Your task to perform on an android device: read, delete, or share a saved page in the chrome app Image 0: 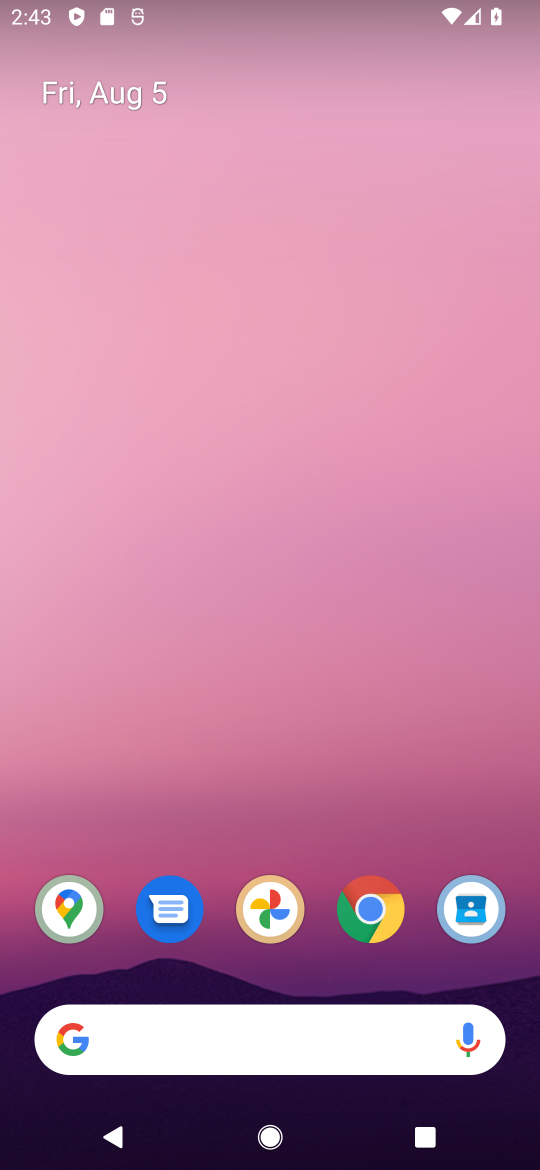
Step 0: click (383, 894)
Your task to perform on an android device: read, delete, or share a saved page in the chrome app Image 1: 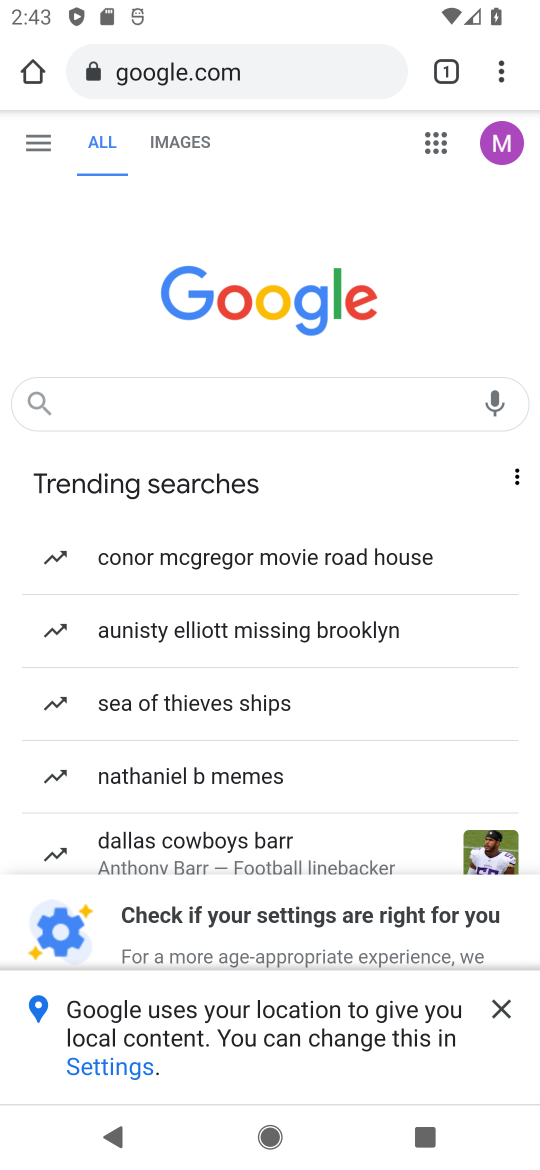
Step 1: click (486, 89)
Your task to perform on an android device: read, delete, or share a saved page in the chrome app Image 2: 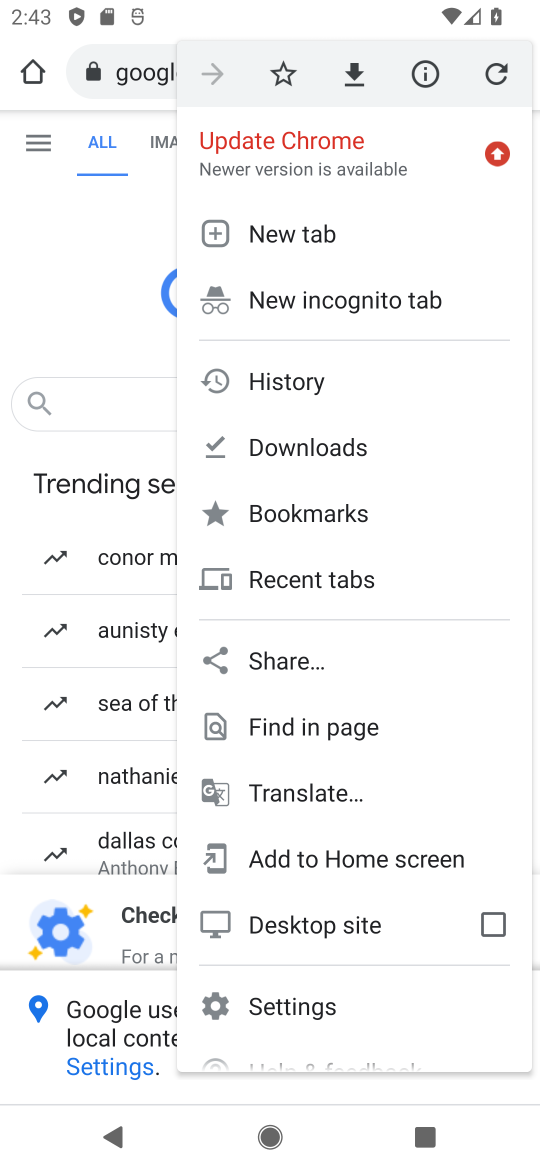
Step 2: click (362, 993)
Your task to perform on an android device: read, delete, or share a saved page in the chrome app Image 3: 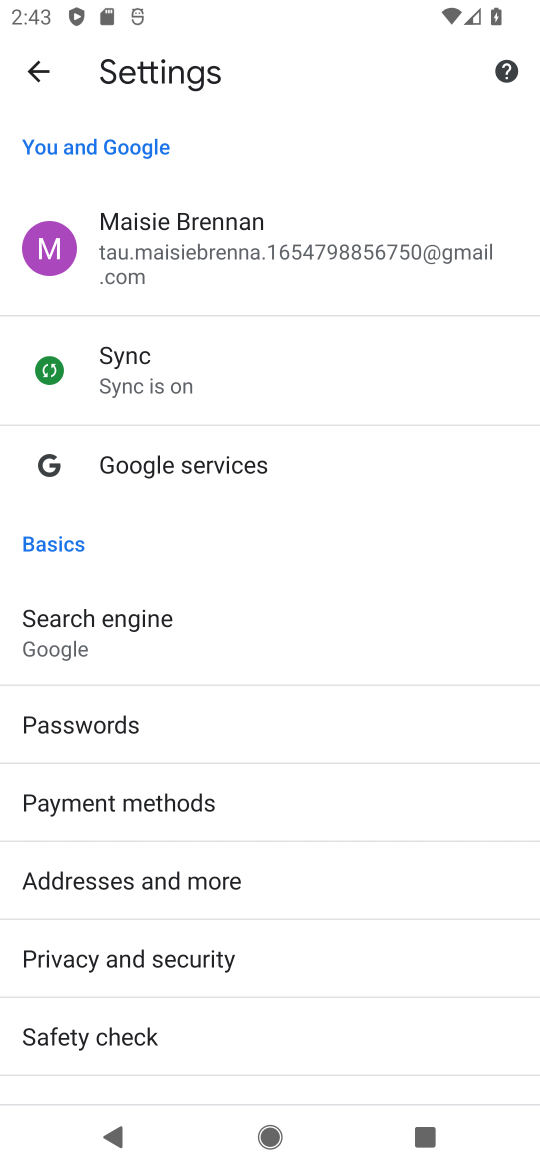
Step 3: task complete